Your task to perform on an android device: Show me popular games on the Play Store Image 0: 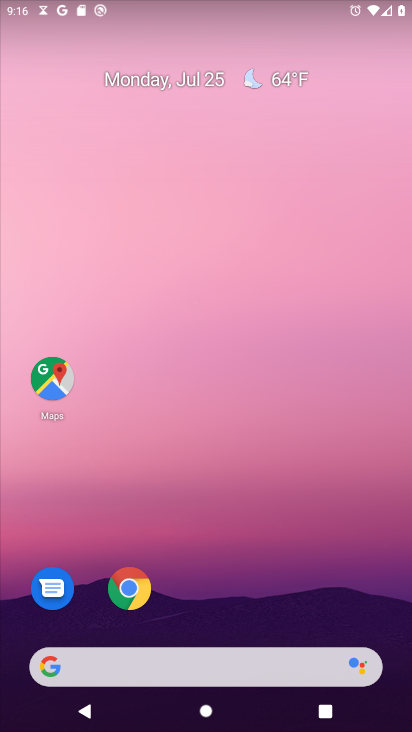
Step 0: drag from (296, 631) to (332, 370)
Your task to perform on an android device: Show me popular games on the Play Store Image 1: 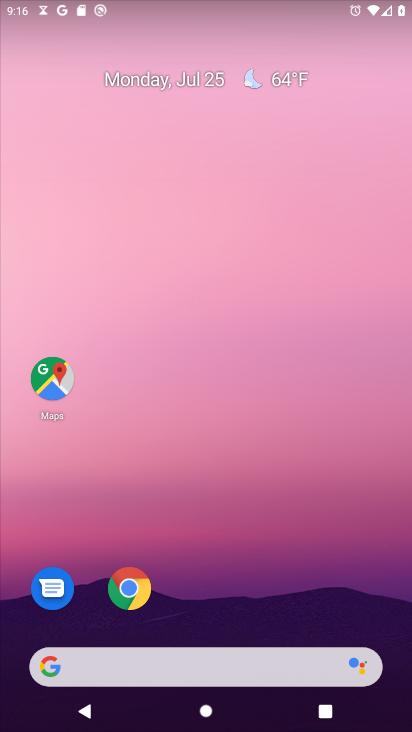
Step 1: drag from (251, 666) to (296, 144)
Your task to perform on an android device: Show me popular games on the Play Store Image 2: 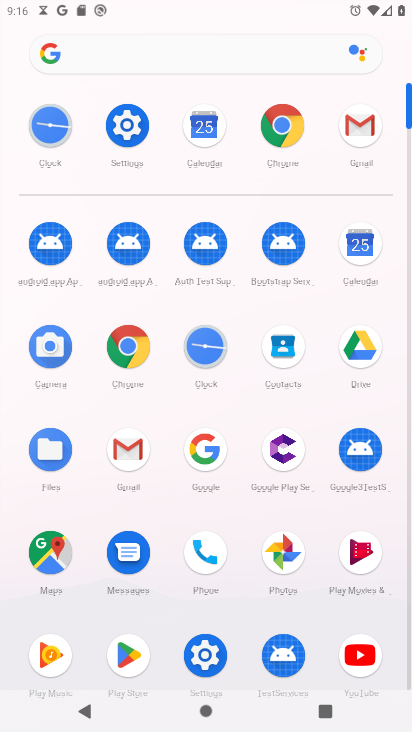
Step 2: click (128, 658)
Your task to perform on an android device: Show me popular games on the Play Store Image 3: 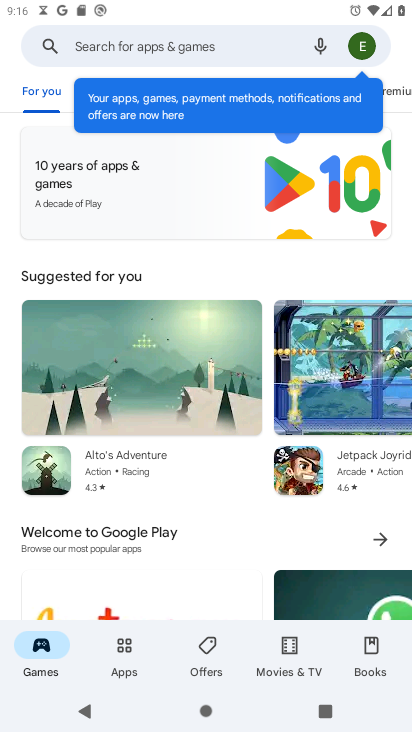
Step 3: drag from (154, 585) to (203, 114)
Your task to perform on an android device: Show me popular games on the Play Store Image 4: 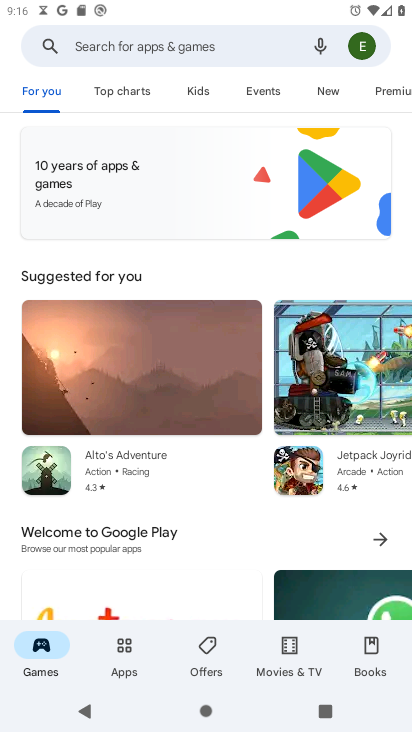
Step 4: drag from (224, 556) to (236, 163)
Your task to perform on an android device: Show me popular games on the Play Store Image 5: 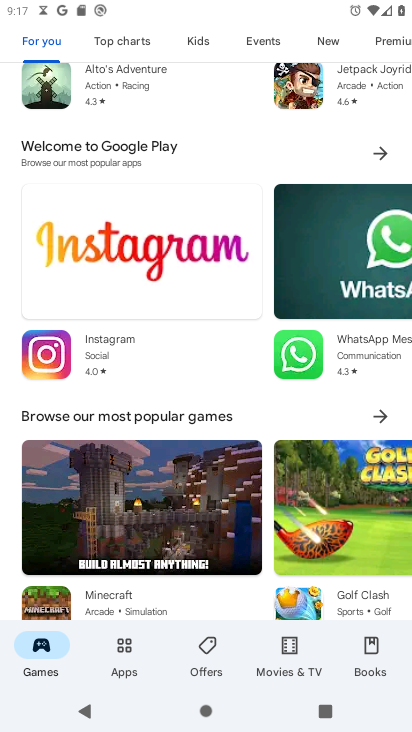
Step 5: drag from (206, 546) to (202, 376)
Your task to perform on an android device: Show me popular games on the Play Store Image 6: 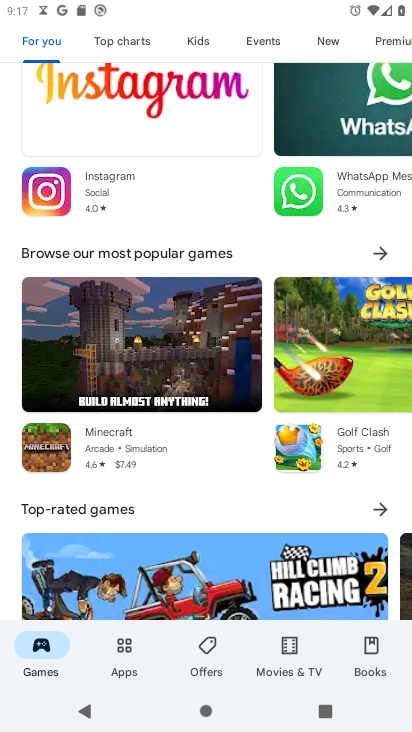
Step 6: click (389, 252)
Your task to perform on an android device: Show me popular games on the Play Store Image 7: 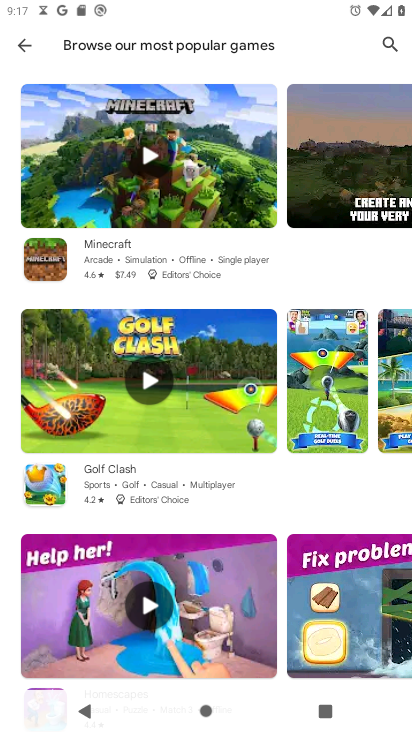
Step 7: task complete